Your task to perform on an android device: turn off improve location accuracy Image 0: 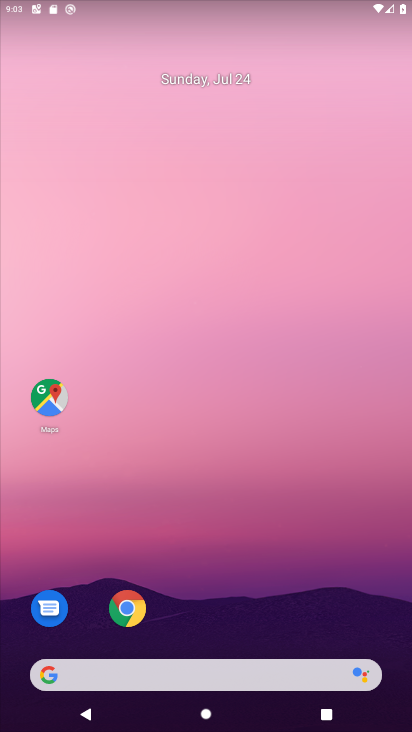
Step 0: drag from (247, 606) to (213, 59)
Your task to perform on an android device: turn off improve location accuracy Image 1: 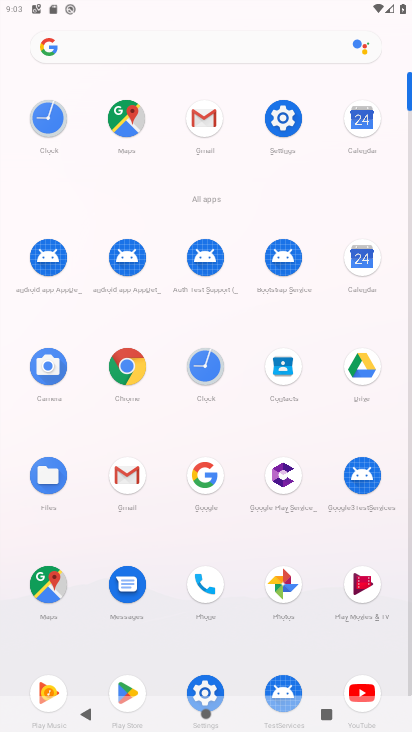
Step 1: click (282, 109)
Your task to perform on an android device: turn off improve location accuracy Image 2: 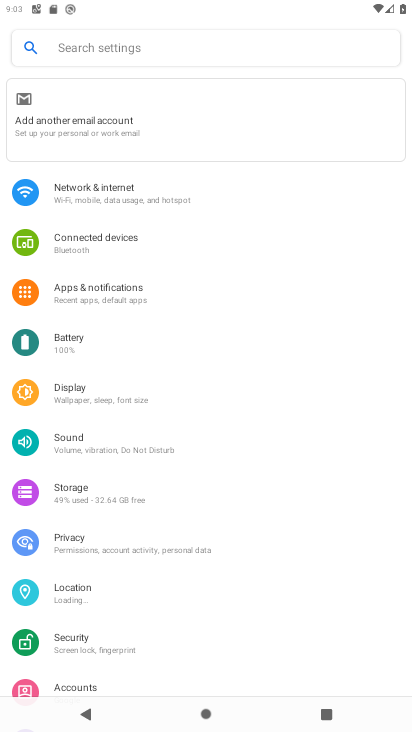
Step 2: click (89, 602)
Your task to perform on an android device: turn off improve location accuracy Image 3: 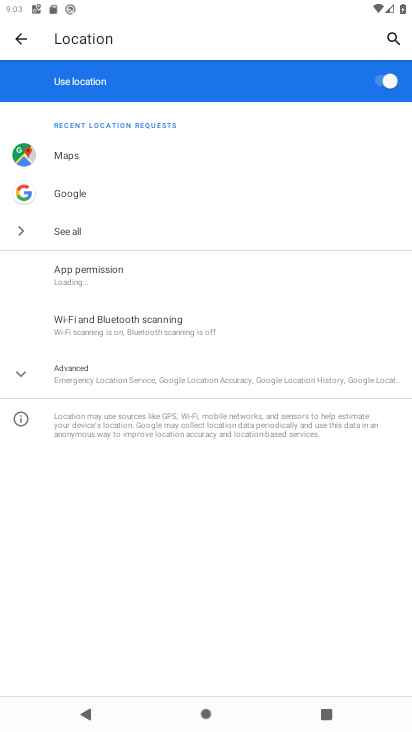
Step 3: click (110, 372)
Your task to perform on an android device: turn off improve location accuracy Image 4: 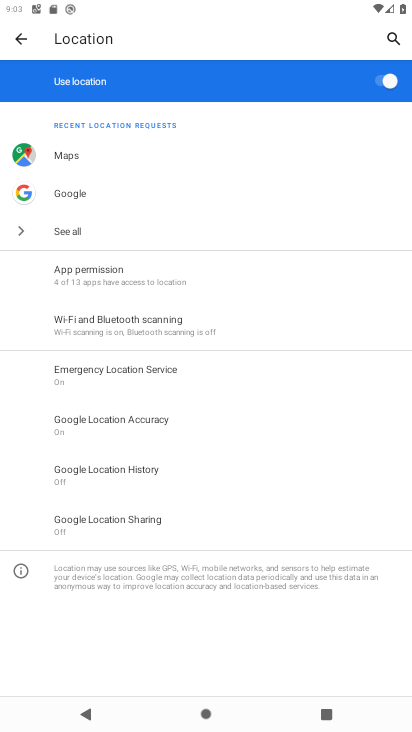
Step 4: click (122, 415)
Your task to perform on an android device: turn off improve location accuracy Image 5: 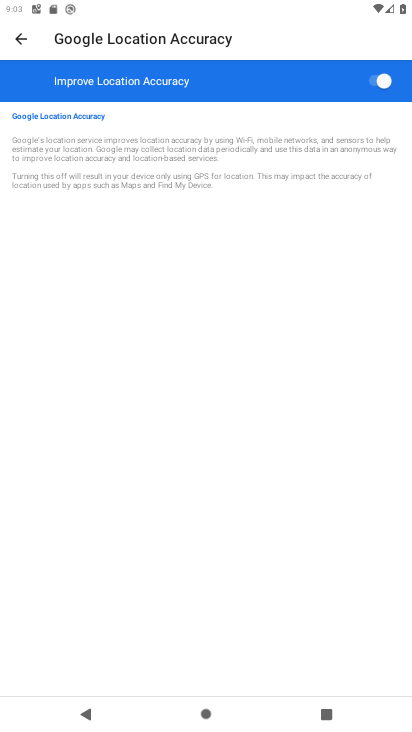
Step 5: click (373, 88)
Your task to perform on an android device: turn off improve location accuracy Image 6: 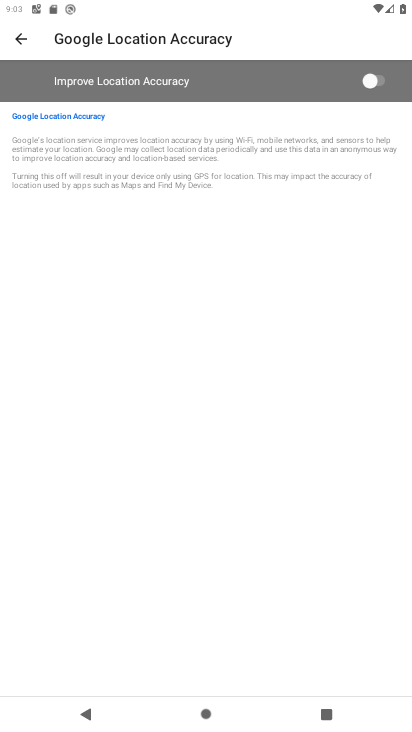
Step 6: task complete